Your task to perform on an android device: manage bookmarks in the chrome app Image 0: 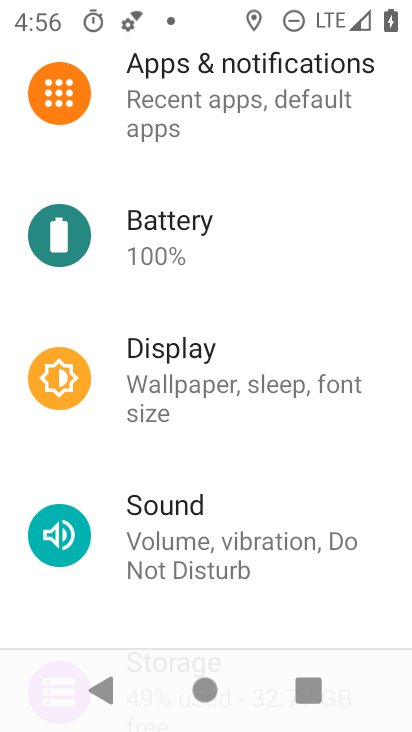
Step 0: press home button
Your task to perform on an android device: manage bookmarks in the chrome app Image 1: 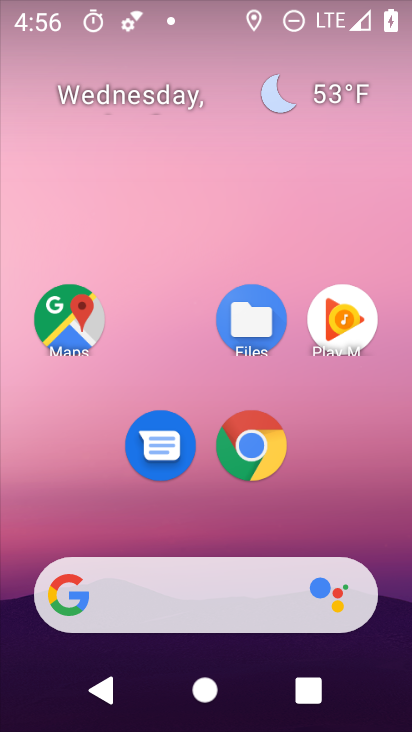
Step 1: click (244, 454)
Your task to perform on an android device: manage bookmarks in the chrome app Image 2: 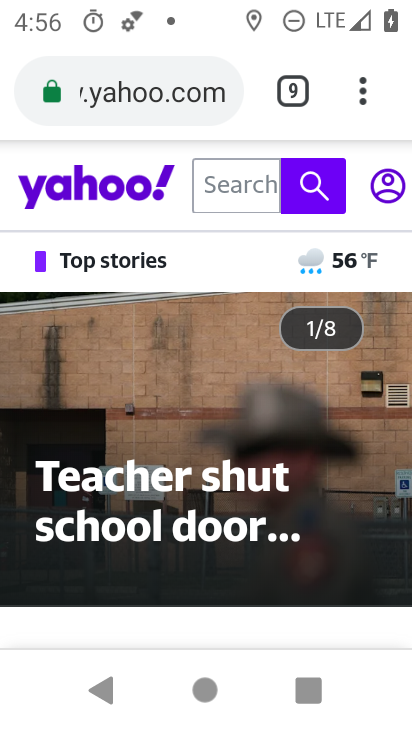
Step 2: click (382, 100)
Your task to perform on an android device: manage bookmarks in the chrome app Image 3: 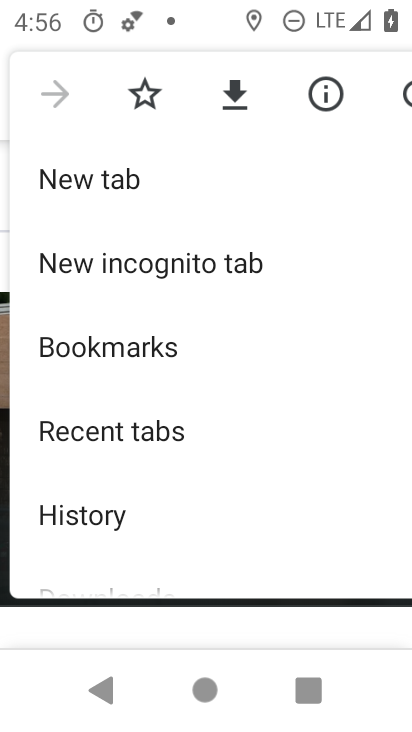
Step 3: click (205, 344)
Your task to perform on an android device: manage bookmarks in the chrome app Image 4: 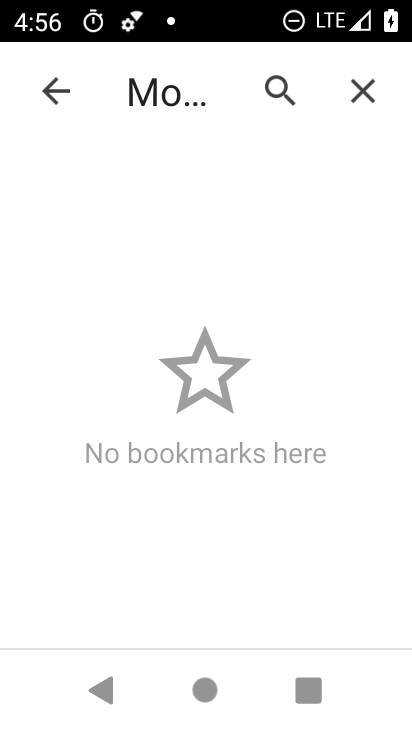
Step 4: task complete